Your task to perform on an android device: Go to battery settings Image 0: 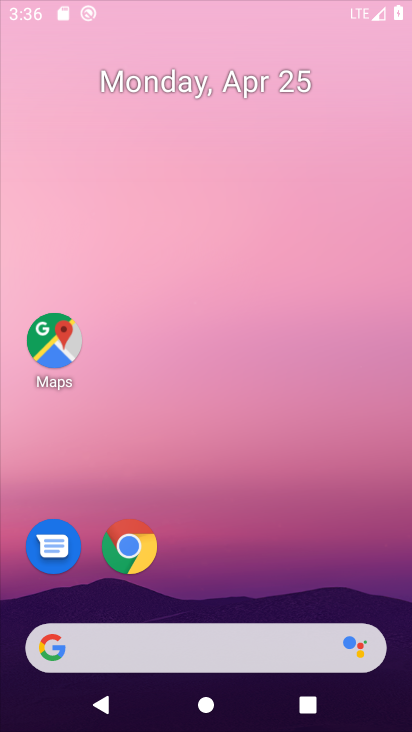
Step 0: press home button
Your task to perform on an android device: Go to battery settings Image 1: 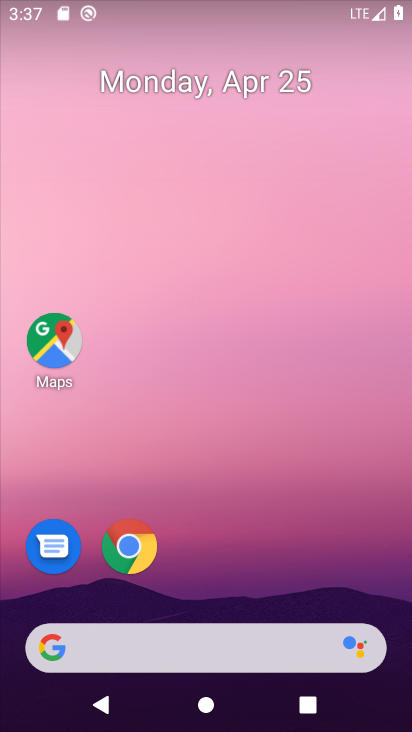
Step 1: drag from (271, 564) to (392, 50)
Your task to perform on an android device: Go to battery settings Image 2: 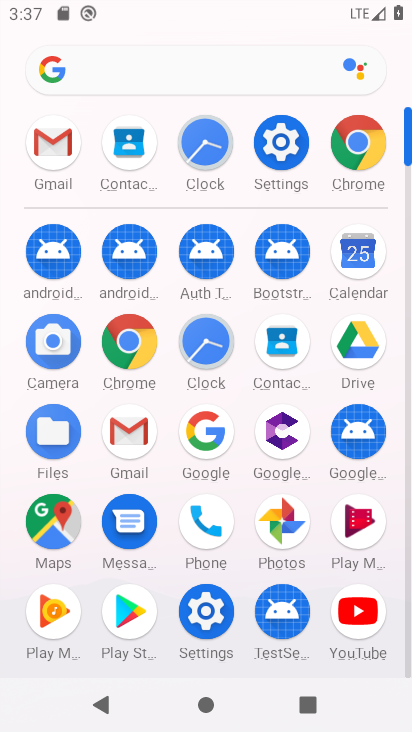
Step 2: click (284, 135)
Your task to perform on an android device: Go to battery settings Image 3: 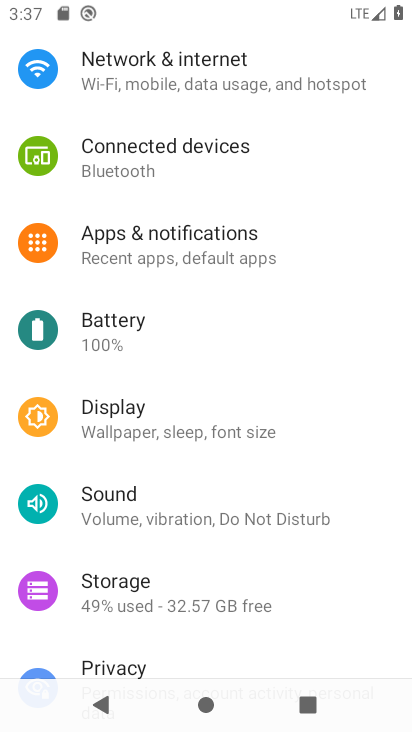
Step 3: click (182, 327)
Your task to perform on an android device: Go to battery settings Image 4: 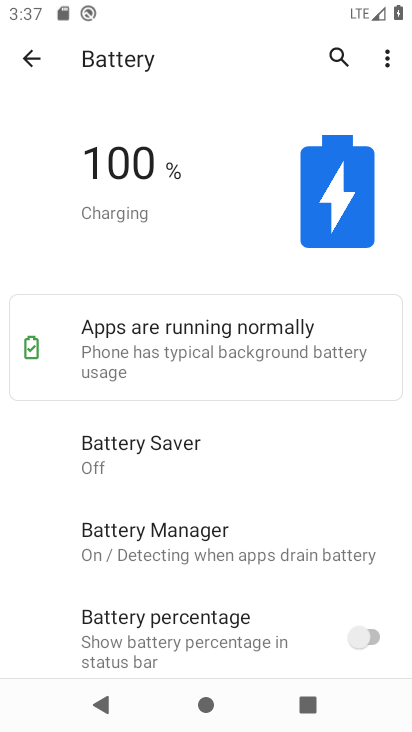
Step 4: task complete